Your task to perform on an android device: open app "Paramount+ | Peak Streaming" (install if not already installed) and enter user name: "fostered@yahoo.com" and password: "strong" Image 0: 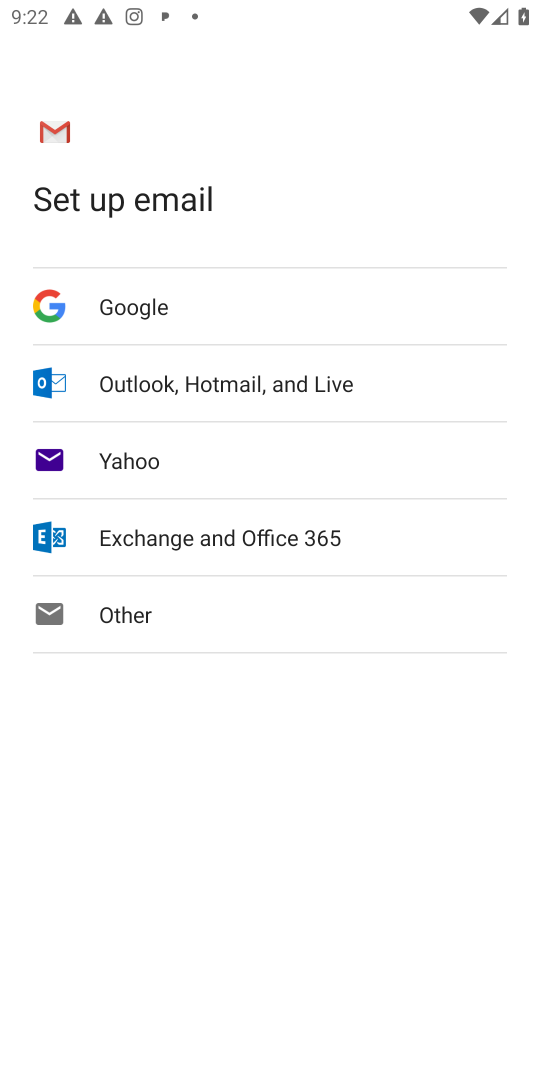
Step 0: press home button
Your task to perform on an android device: open app "Paramount+ | Peak Streaming" (install if not already installed) and enter user name: "fostered@yahoo.com" and password: "strong" Image 1: 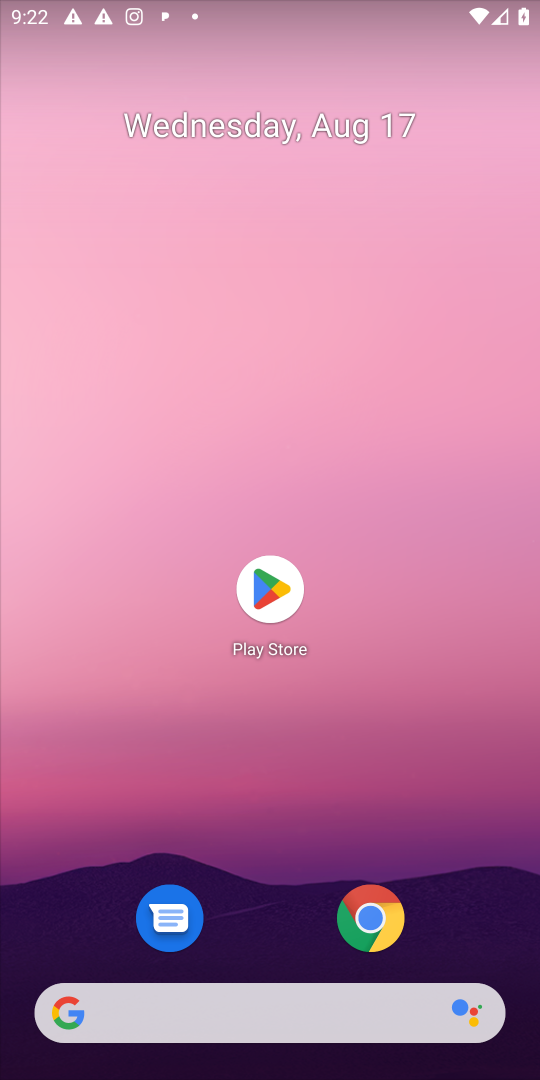
Step 1: click (271, 590)
Your task to perform on an android device: open app "Paramount+ | Peak Streaming" (install if not already installed) and enter user name: "fostered@yahoo.com" and password: "strong" Image 2: 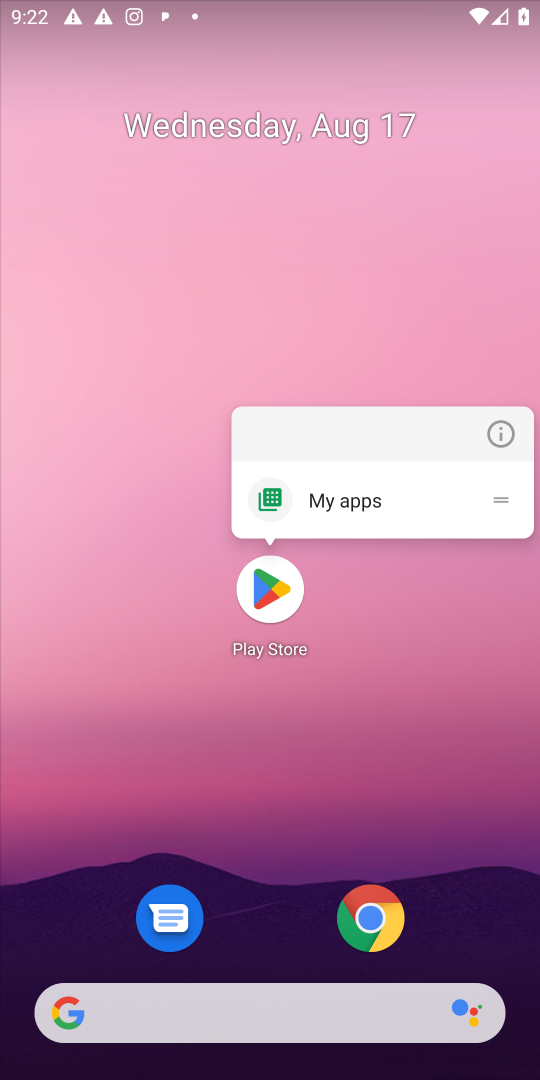
Step 2: click (271, 590)
Your task to perform on an android device: open app "Paramount+ | Peak Streaming" (install if not already installed) and enter user name: "fostered@yahoo.com" and password: "strong" Image 3: 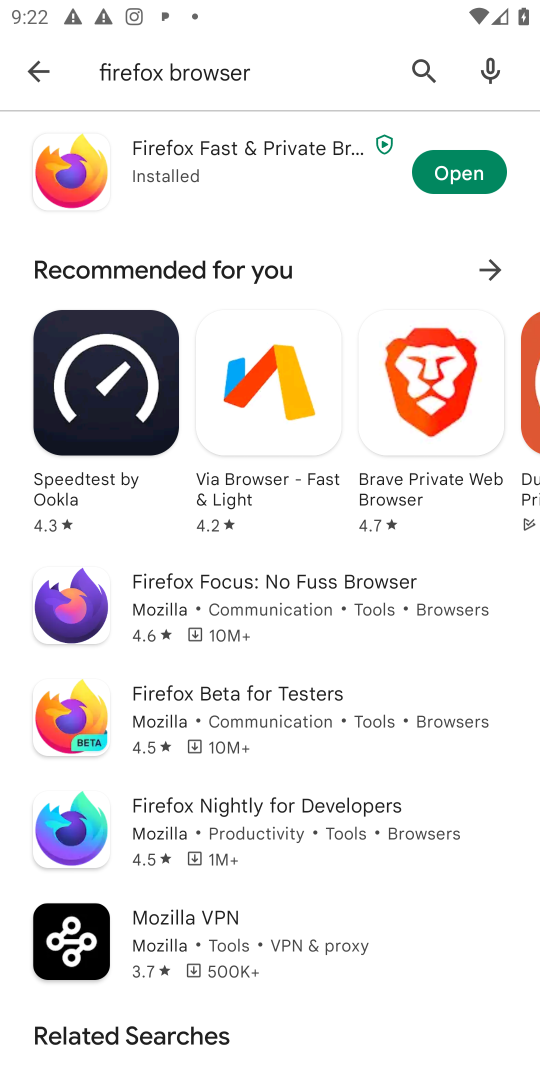
Step 3: click (425, 71)
Your task to perform on an android device: open app "Paramount+ | Peak Streaming" (install if not already installed) and enter user name: "fostered@yahoo.com" and password: "strong" Image 4: 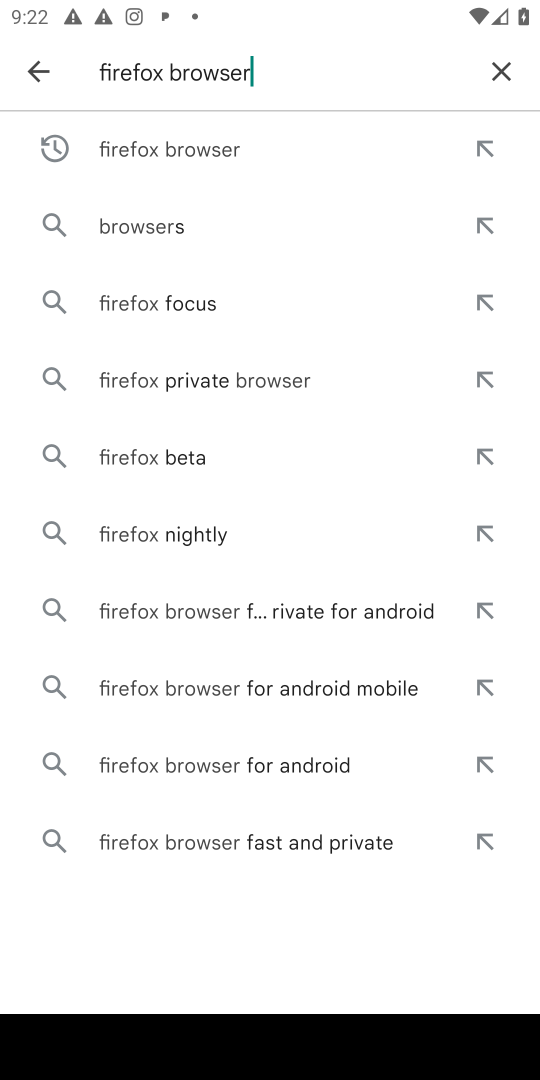
Step 4: click (498, 62)
Your task to perform on an android device: open app "Paramount+ | Peak Streaming" (install if not already installed) and enter user name: "fostered@yahoo.com" and password: "strong" Image 5: 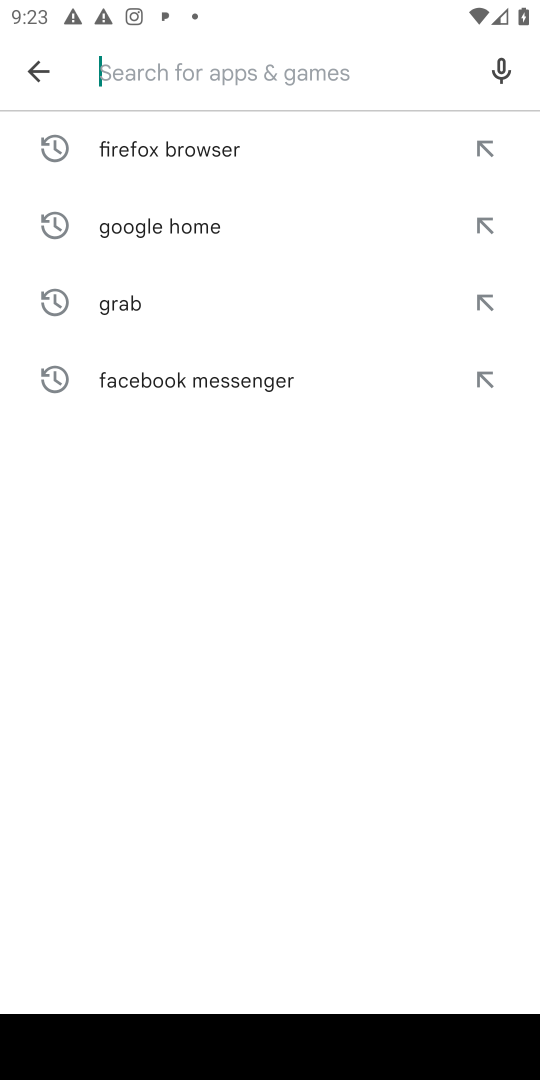
Step 5: type "Paramount+ | Peak Streaming"
Your task to perform on an android device: open app "Paramount+ | Peak Streaming" (install if not already installed) and enter user name: "fostered@yahoo.com" and password: "strong" Image 6: 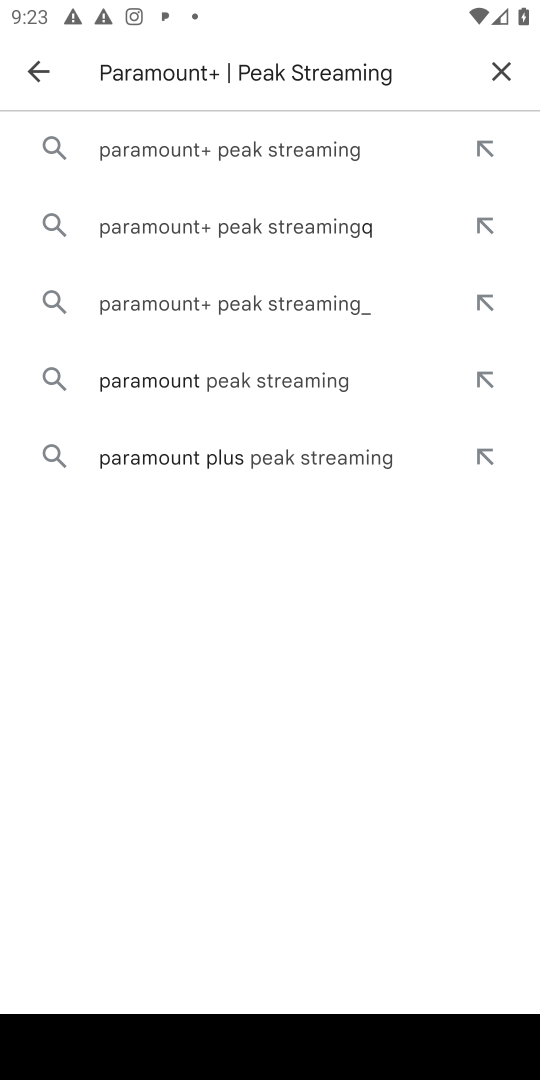
Step 6: click (317, 140)
Your task to perform on an android device: open app "Paramount+ | Peak Streaming" (install if not already installed) and enter user name: "fostered@yahoo.com" and password: "strong" Image 7: 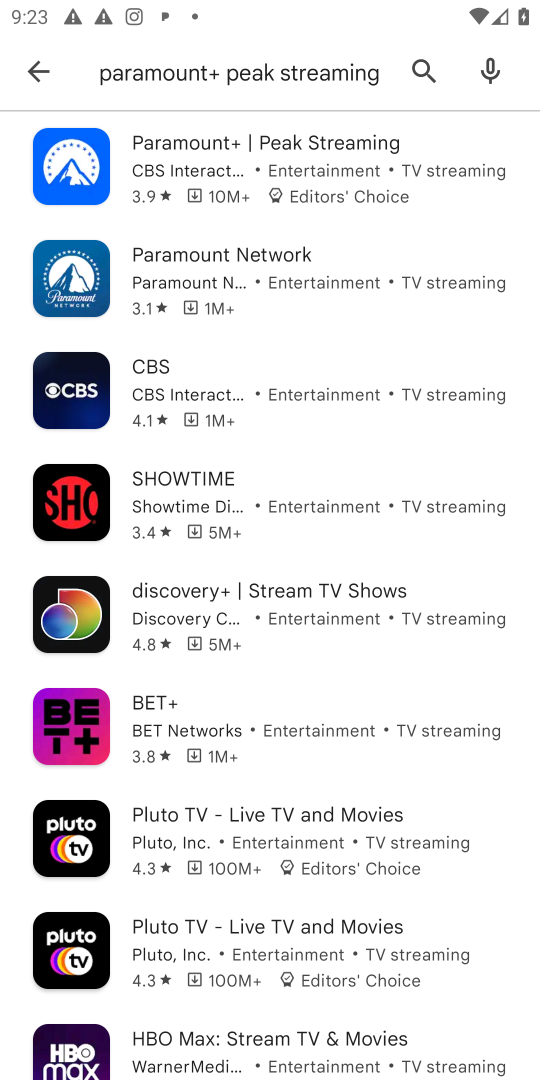
Step 7: click (267, 166)
Your task to perform on an android device: open app "Paramount+ | Peak Streaming" (install if not already installed) and enter user name: "fostered@yahoo.com" and password: "strong" Image 8: 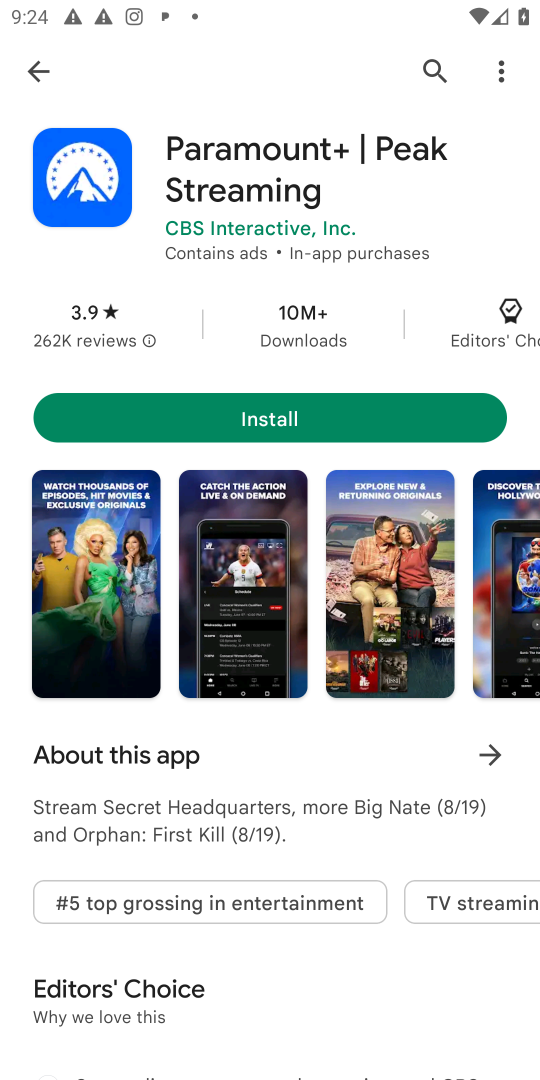
Step 8: click (242, 418)
Your task to perform on an android device: open app "Paramount+ | Peak Streaming" (install if not already installed) and enter user name: "fostered@yahoo.com" and password: "strong" Image 9: 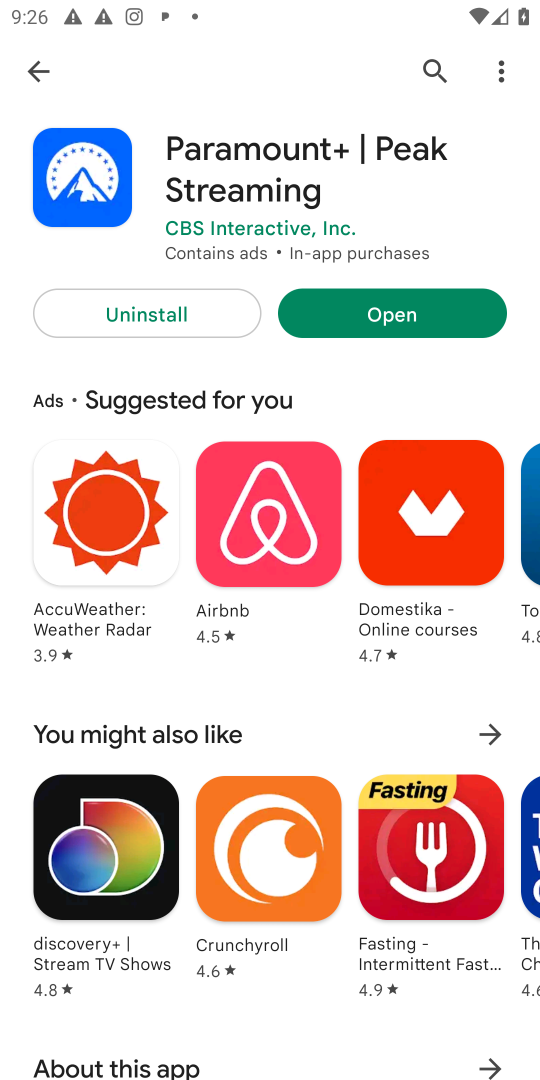
Step 9: click (431, 326)
Your task to perform on an android device: open app "Paramount+ | Peak Streaming" (install if not already installed) and enter user name: "fostered@yahoo.com" and password: "strong" Image 10: 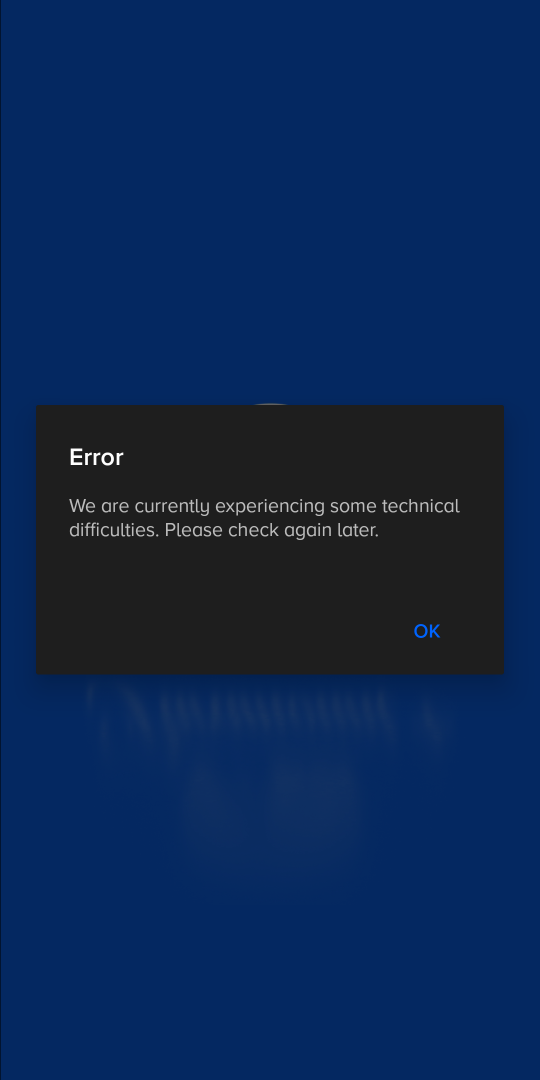
Step 10: task complete